Your task to perform on an android device: snooze an email in the gmail app Image 0: 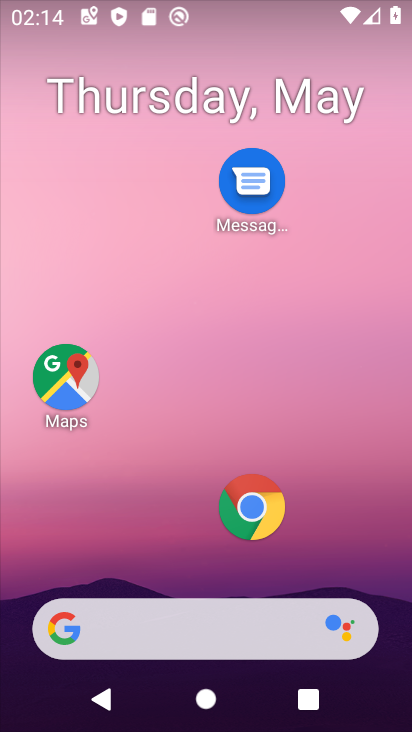
Step 0: drag from (299, 652) to (345, 59)
Your task to perform on an android device: snooze an email in the gmail app Image 1: 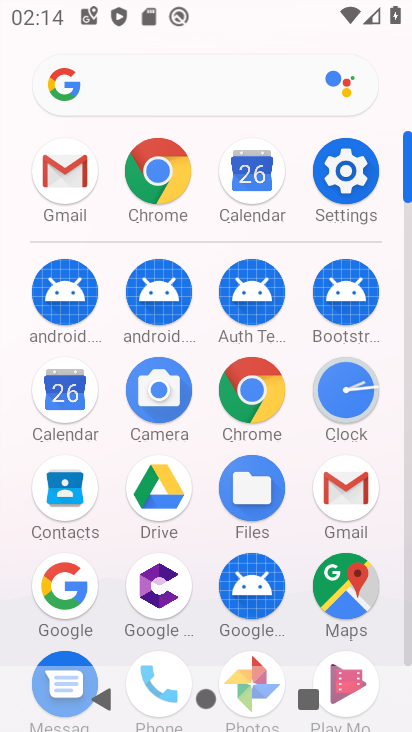
Step 1: click (325, 463)
Your task to perform on an android device: snooze an email in the gmail app Image 2: 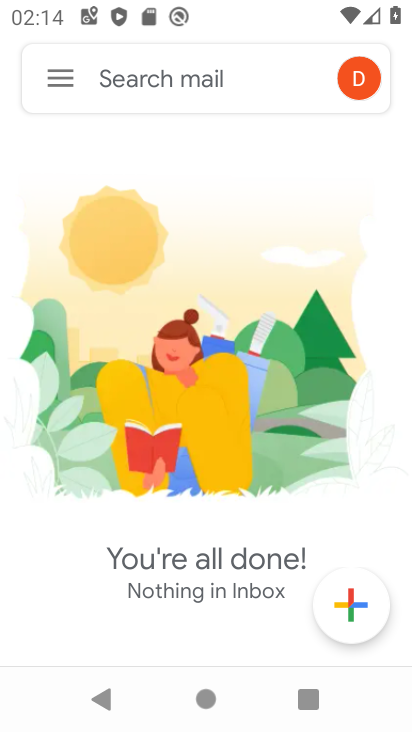
Step 2: drag from (154, 203) to (172, 670)
Your task to perform on an android device: snooze an email in the gmail app Image 3: 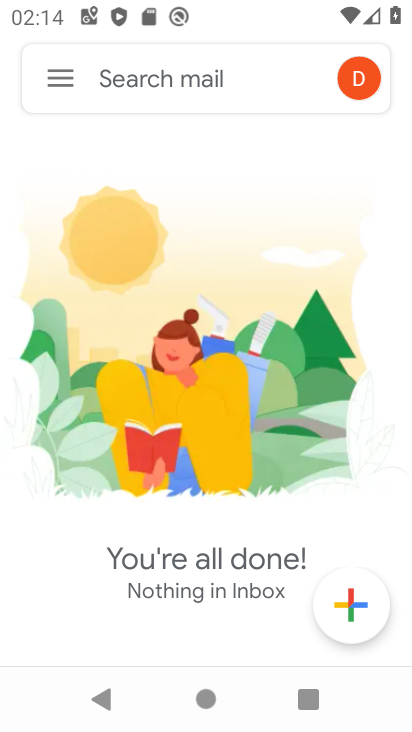
Step 3: click (43, 80)
Your task to perform on an android device: snooze an email in the gmail app Image 4: 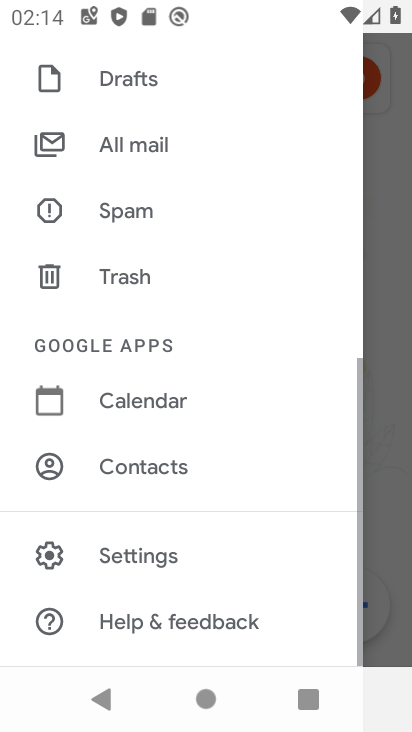
Step 4: drag from (156, 180) to (199, 698)
Your task to perform on an android device: snooze an email in the gmail app Image 5: 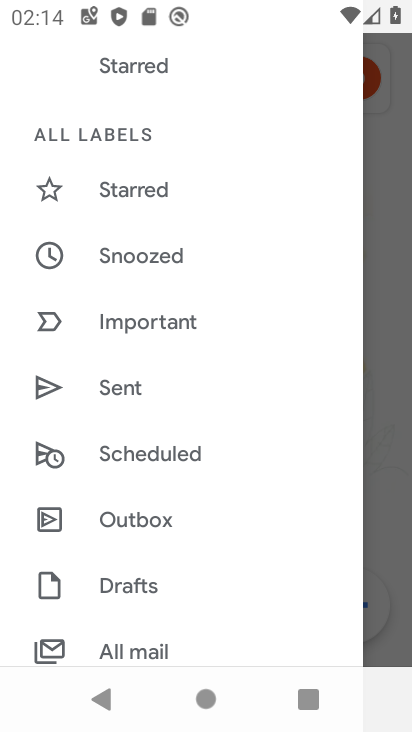
Step 5: drag from (176, 233) to (182, 388)
Your task to perform on an android device: snooze an email in the gmail app Image 6: 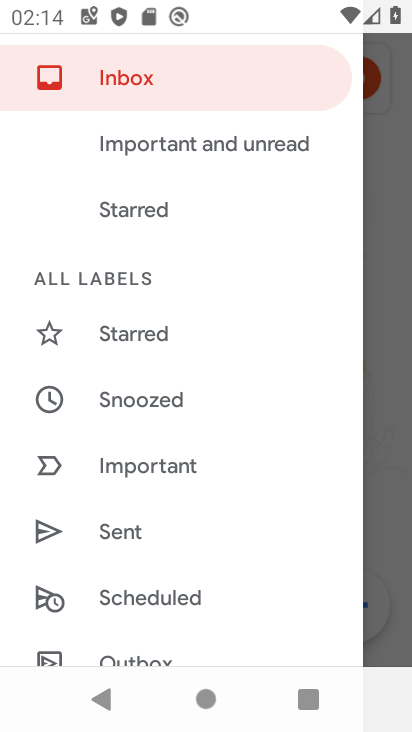
Step 6: click (172, 407)
Your task to perform on an android device: snooze an email in the gmail app Image 7: 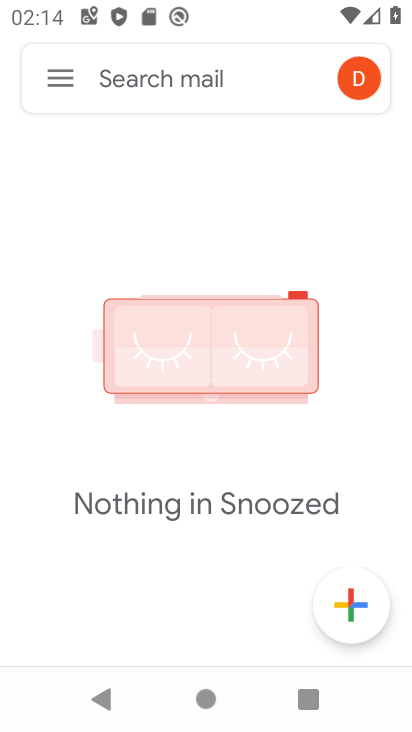
Step 7: task complete